Your task to perform on an android device: turn vacation reply on in the gmail app Image 0: 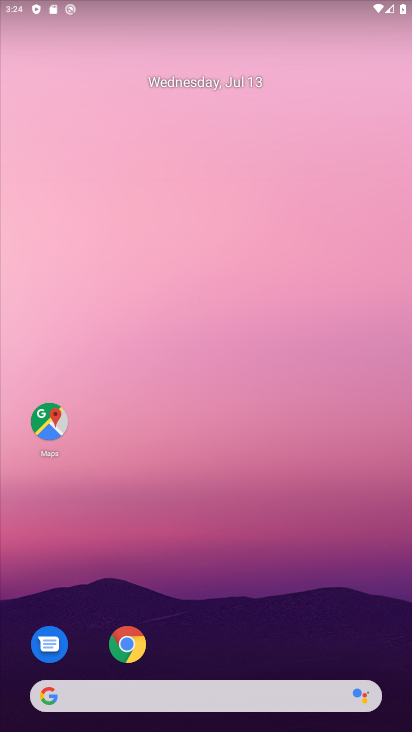
Step 0: drag from (236, 643) to (276, 6)
Your task to perform on an android device: turn vacation reply on in the gmail app Image 1: 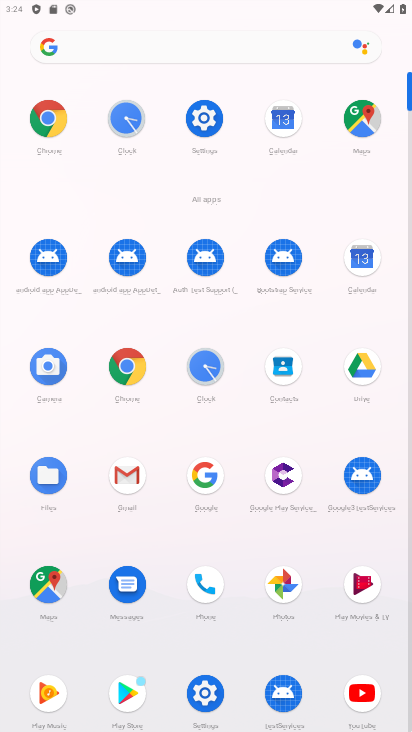
Step 1: click (137, 482)
Your task to perform on an android device: turn vacation reply on in the gmail app Image 2: 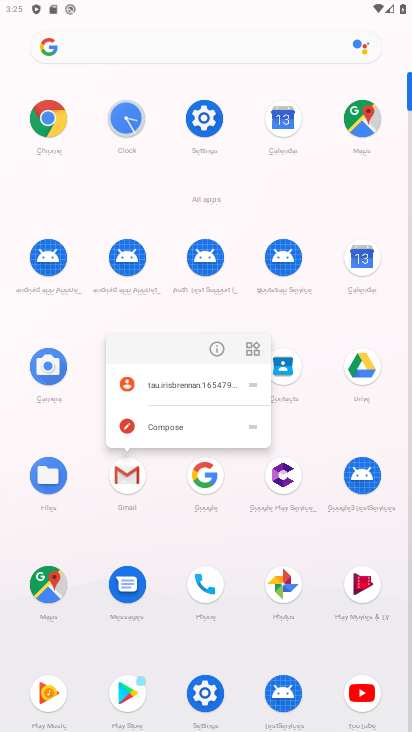
Step 2: click (117, 476)
Your task to perform on an android device: turn vacation reply on in the gmail app Image 3: 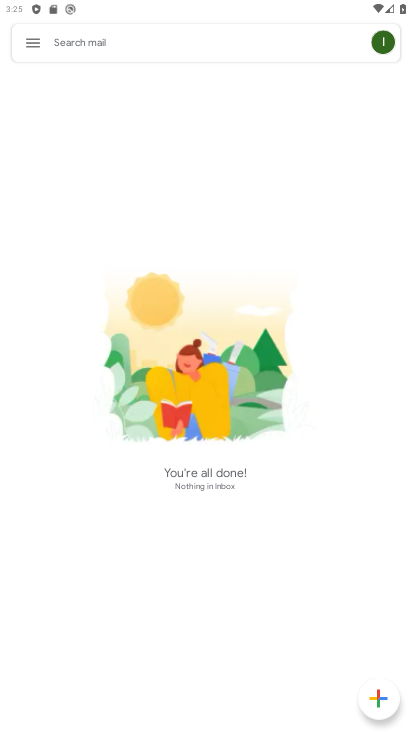
Step 3: click (30, 37)
Your task to perform on an android device: turn vacation reply on in the gmail app Image 4: 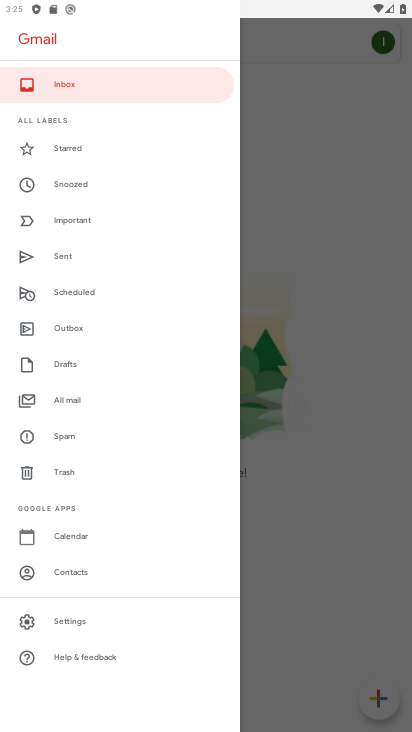
Step 4: click (88, 620)
Your task to perform on an android device: turn vacation reply on in the gmail app Image 5: 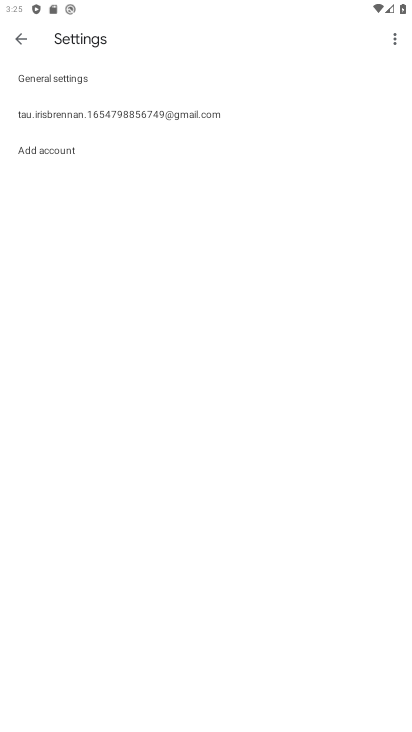
Step 5: click (85, 118)
Your task to perform on an android device: turn vacation reply on in the gmail app Image 6: 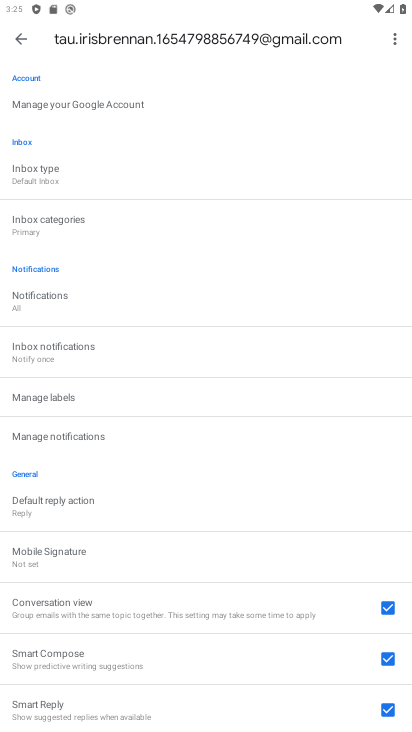
Step 6: drag from (128, 704) to (196, 344)
Your task to perform on an android device: turn vacation reply on in the gmail app Image 7: 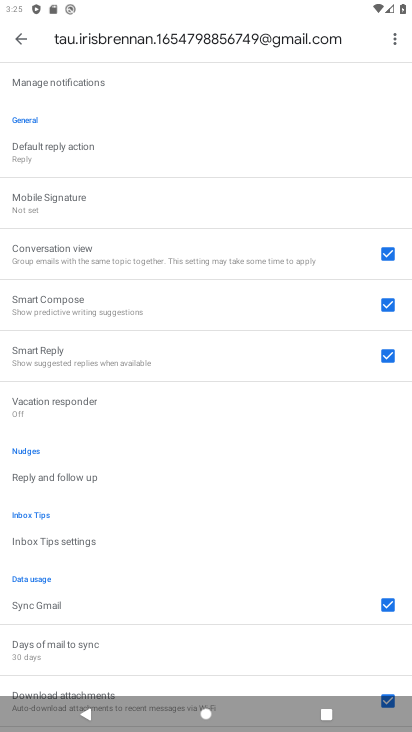
Step 7: click (75, 401)
Your task to perform on an android device: turn vacation reply on in the gmail app Image 8: 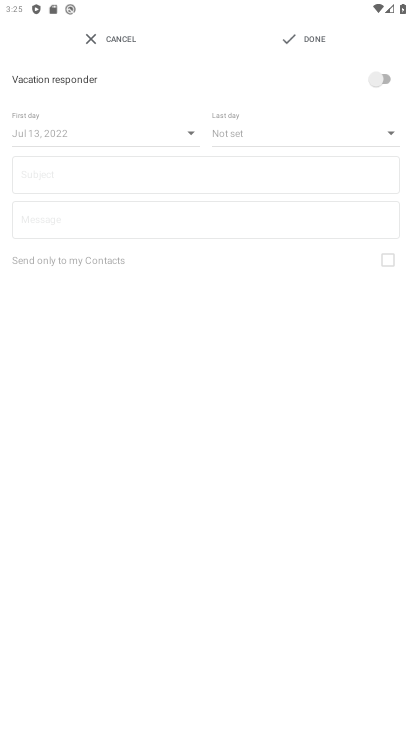
Step 8: click (379, 78)
Your task to perform on an android device: turn vacation reply on in the gmail app Image 9: 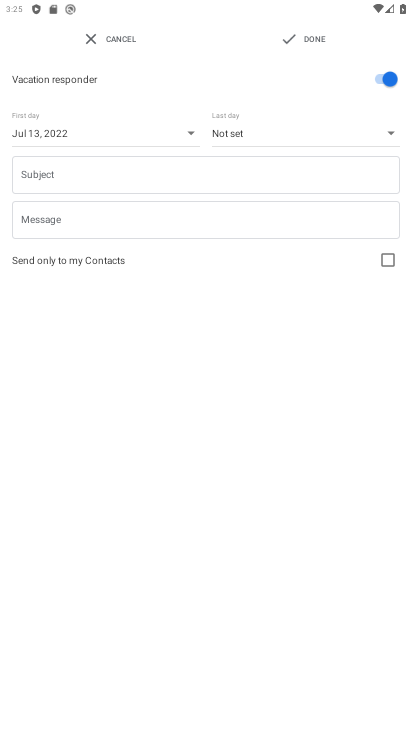
Step 9: task complete